Your task to perform on an android device: check android version Image 0: 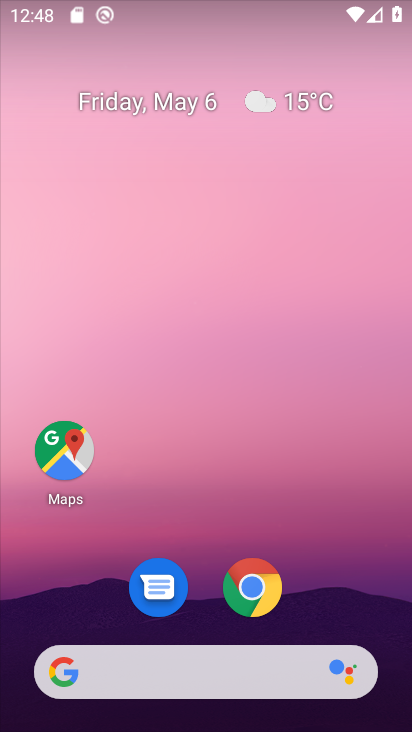
Step 0: drag from (345, 613) to (266, 69)
Your task to perform on an android device: check android version Image 1: 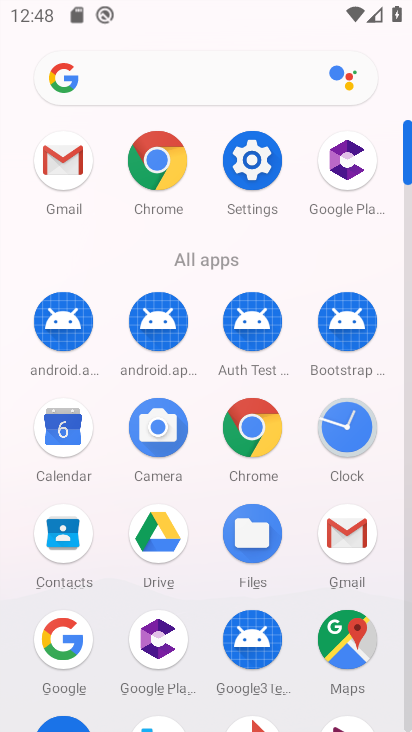
Step 1: click (249, 160)
Your task to perform on an android device: check android version Image 2: 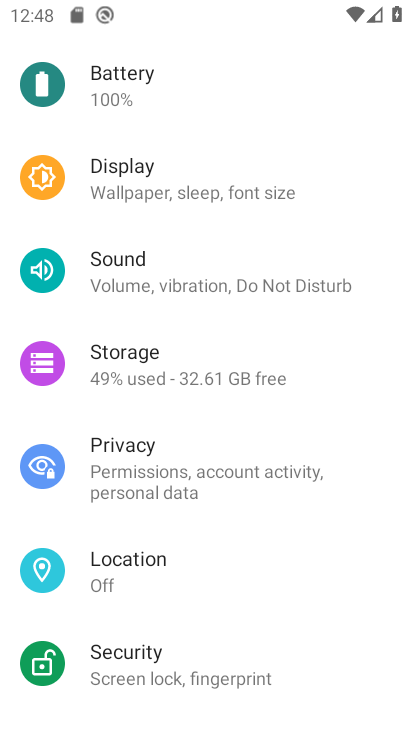
Step 2: drag from (252, 624) to (270, 71)
Your task to perform on an android device: check android version Image 3: 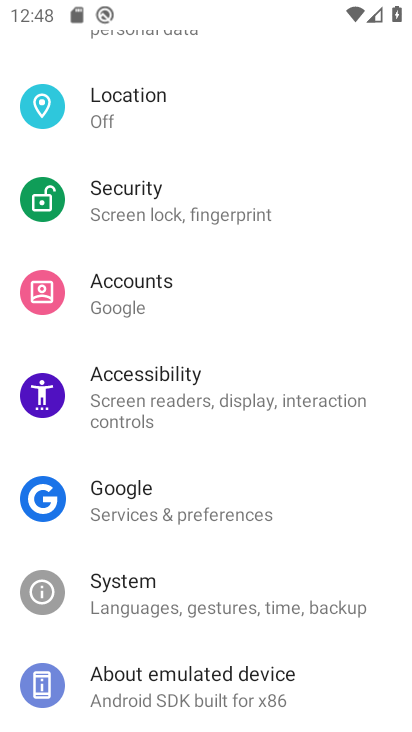
Step 3: click (227, 688)
Your task to perform on an android device: check android version Image 4: 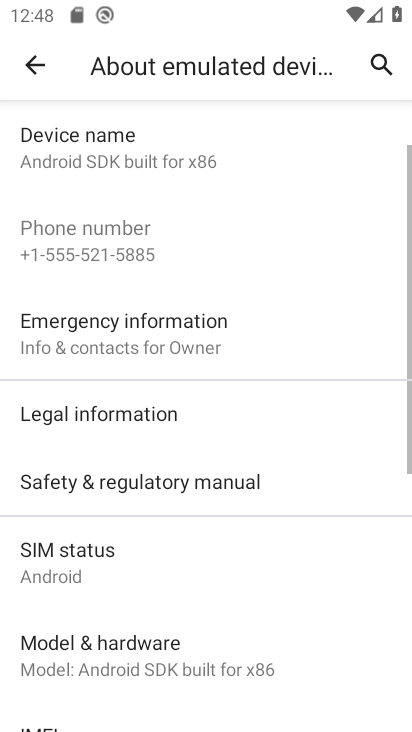
Step 4: drag from (243, 537) to (246, 105)
Your task to perform on an android device: check android version Image 5: 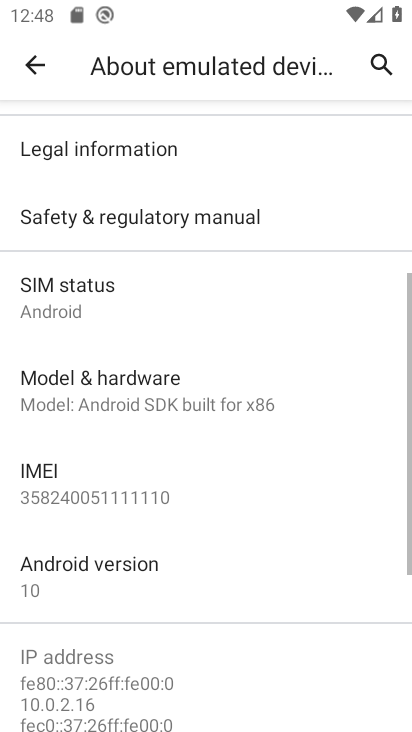
Step 5: click (165, 569)
Your task to perform on an android device: check android version Image 6: 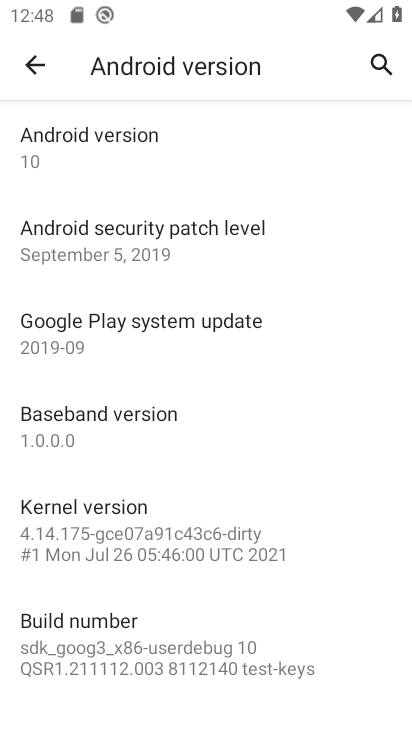
Step 6: task complete